Your task to perform on an android device: toggle javascript in the chrome app Image 0: 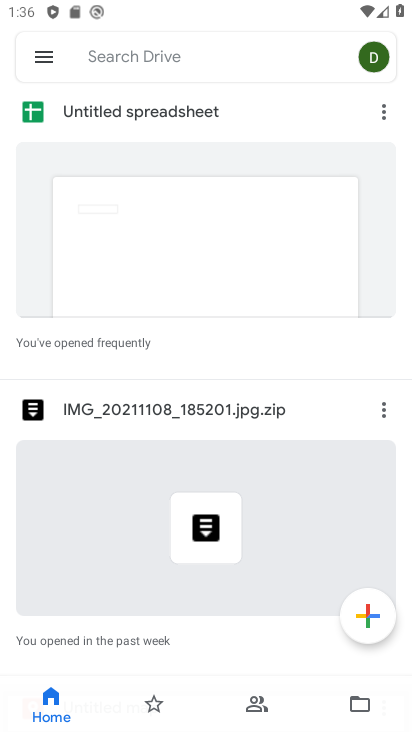
Step 0: press home button
Your task to perform on an android device: toggle javascript in the chrome app Image 1: 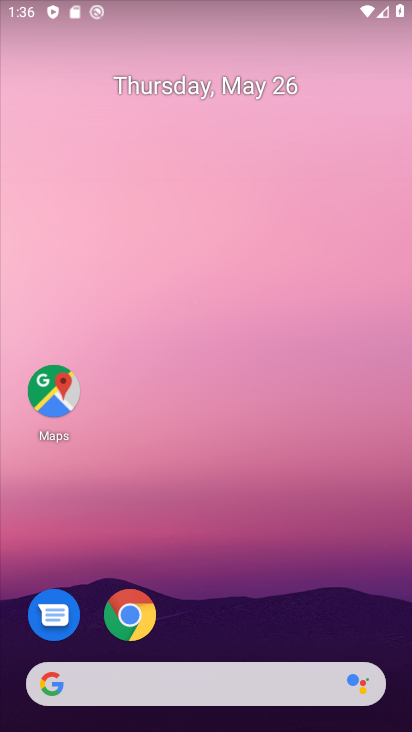
Step 1: click (131, 603)
Your task to perform on an android device: toggle javascript in the chrome app Image 2: 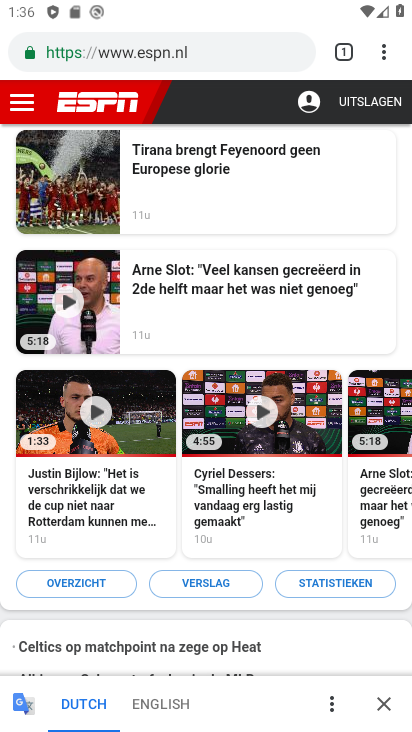
Step 2: click (386, 61)
Your task to perform on an android device: toggle javascript in the chrome app Image 3: 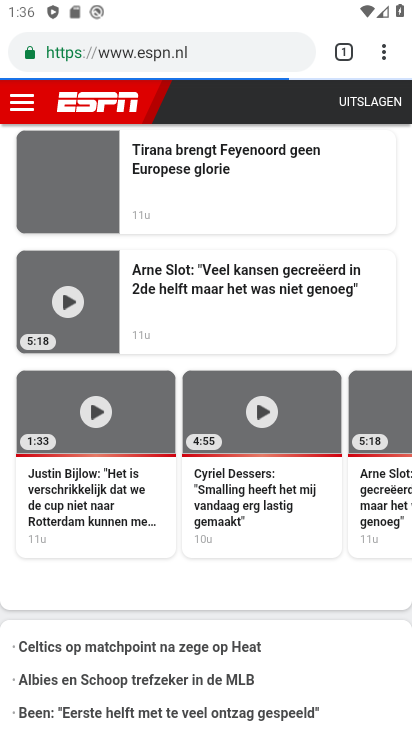
Step 3: click (378, 55)
Your task to perform on an android device: toggle javascript in the chrome app Image 4: 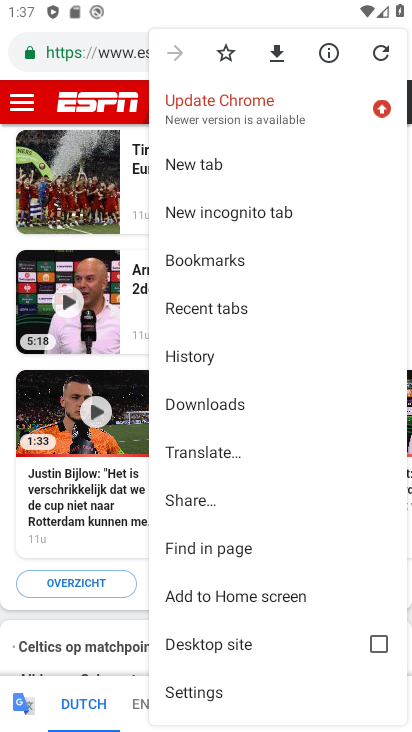
Step 4: click (229, 691)
Your task to perform on an android device: toggle javascript in the chrome app Image 5: 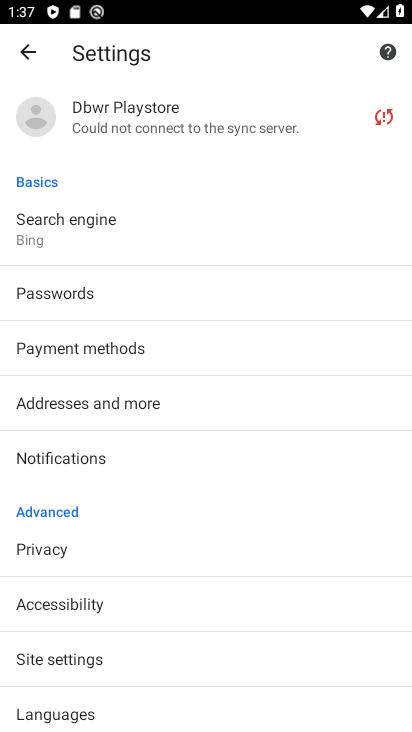
Step 5: click (122, 657)
Your task to perform on an android device: toggle javascript in the chrome app Image 6: 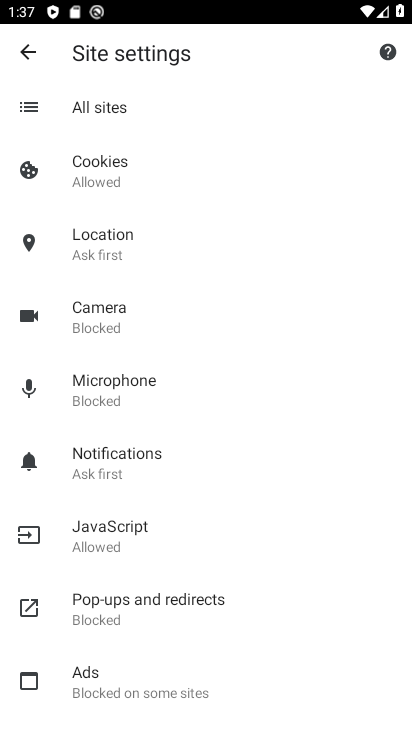
Step 6: click (140, 518)
Your task to perform on an android device: toggle javascript in the chrome app Image 7: 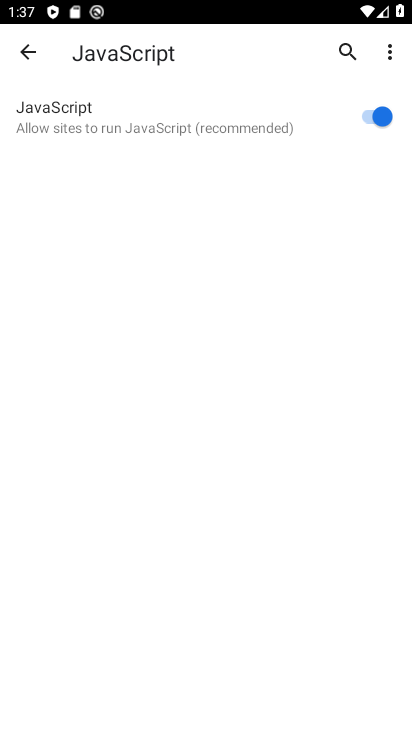
Step 7: click (374, 104)
Your task to perform on an android device: toggle javascript in the chrome app Image 8: 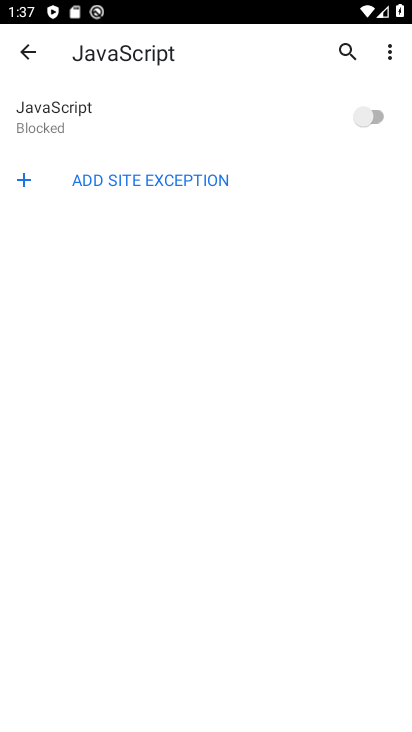
Step 8: task complete